Your task to perform on an android device: turn on priority inbox in the gmail app Image 0: 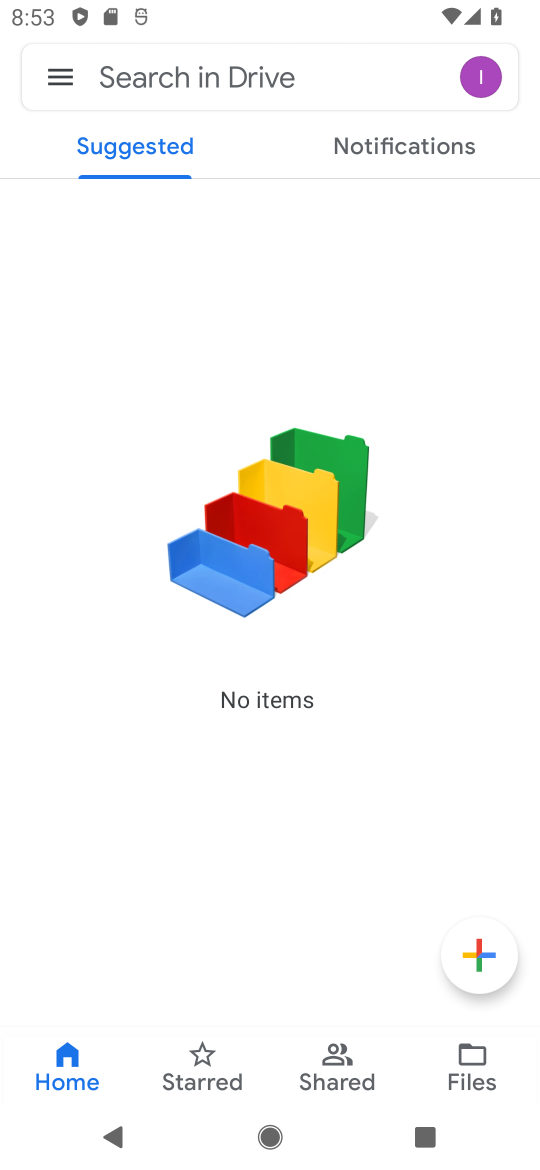
Step 0: press home button
Your task to perform on an android device: turn on priority inbox in the gmail app Image 1: 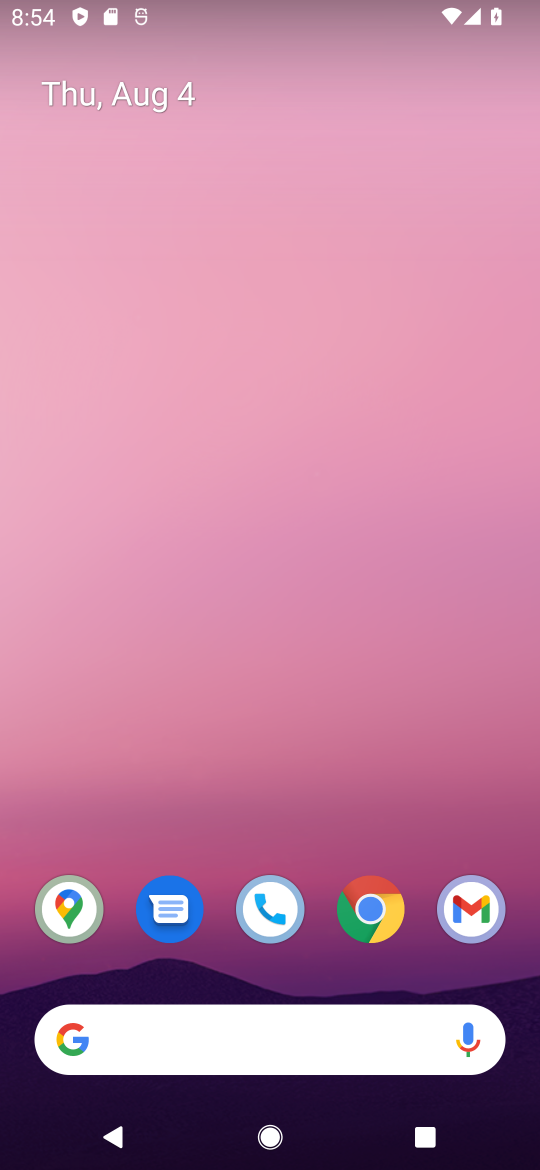
Step 1: drag from (306, 634) to (313, 238)
Your task to perform on an android device: turn on priority inbox in the gmail app Image 2: 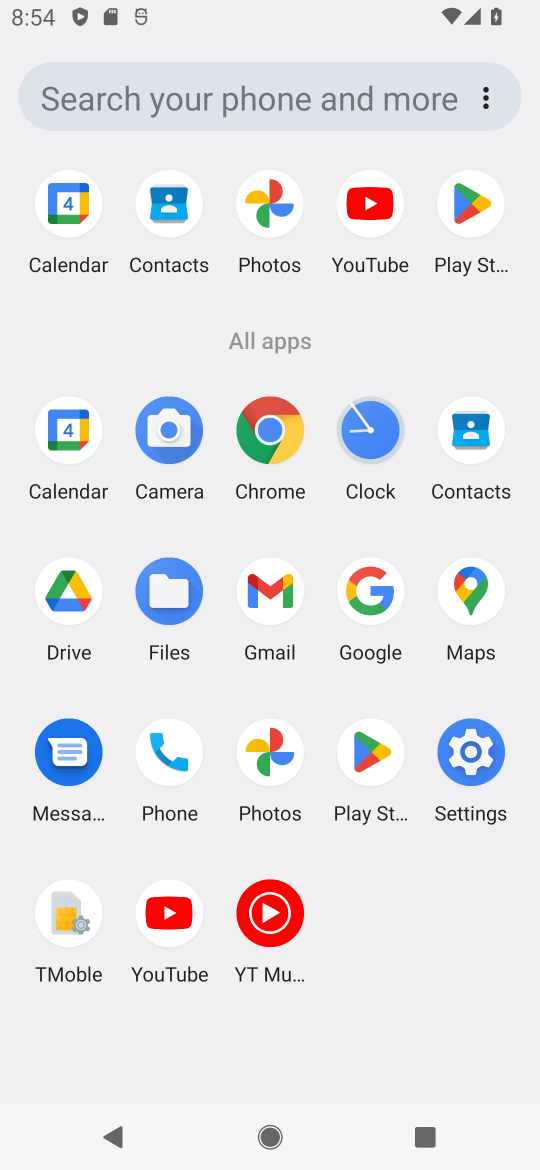
Step 2: click (275, 592)
Your task to perform on an android device: turn on priority inbox in the gmail app Image 3: 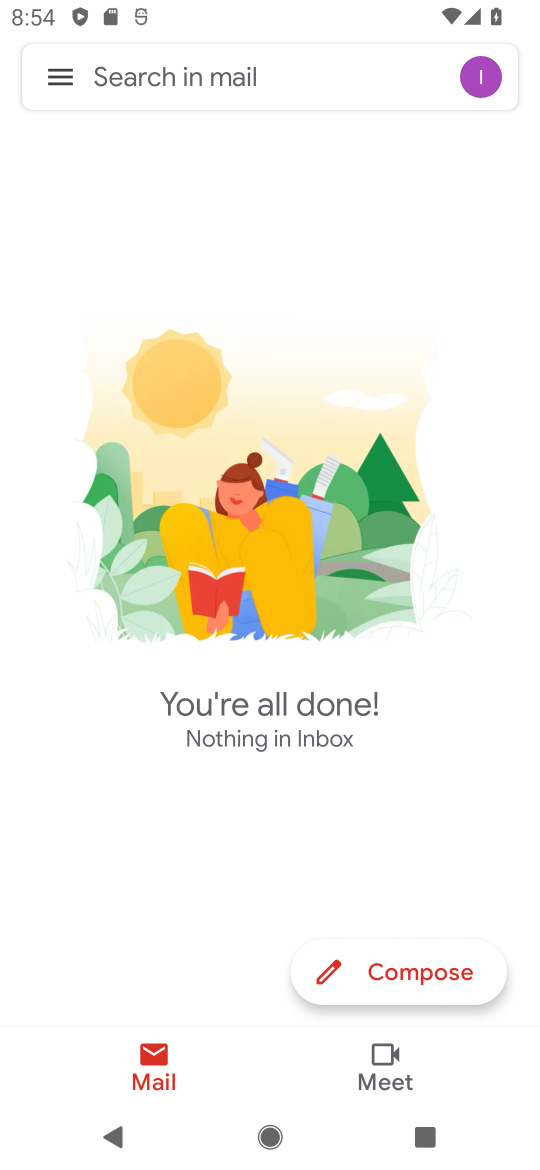
Step 3: click (61, 72)
Your task to perform on an android device: turn on priority inbox in the gmail app Image 4: 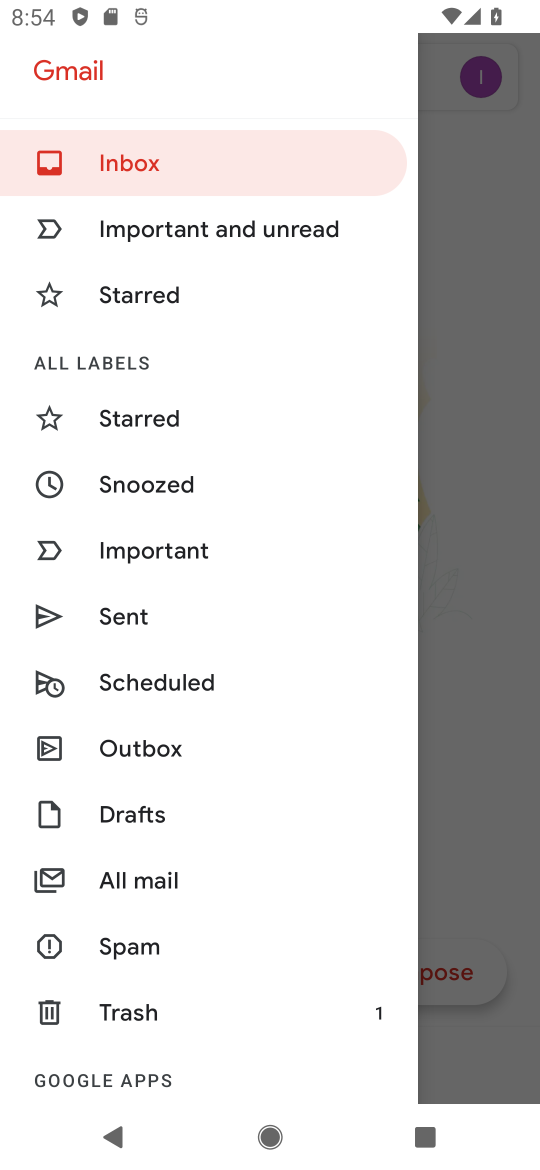
Step 4: drag from (264, 840) to (291, 685)
Your task to perform on an android device: turn on priority inbox in the gmail app Image 5: 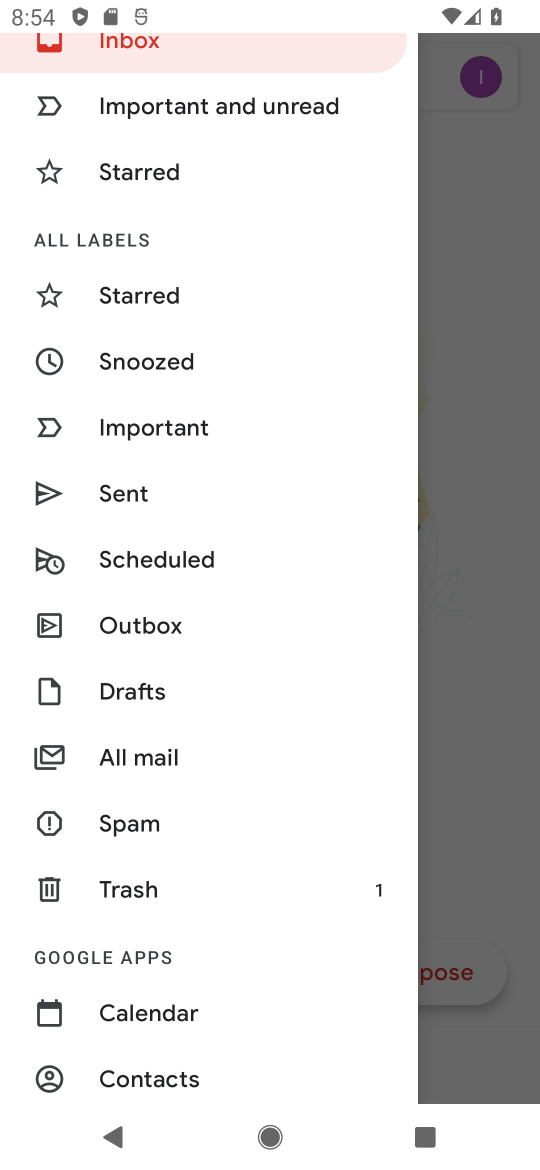
Step 5: drag from (266, 939) to (269, 676)
Your task to perform on an android device: turn on priority inbox in the gmail app Image 6: 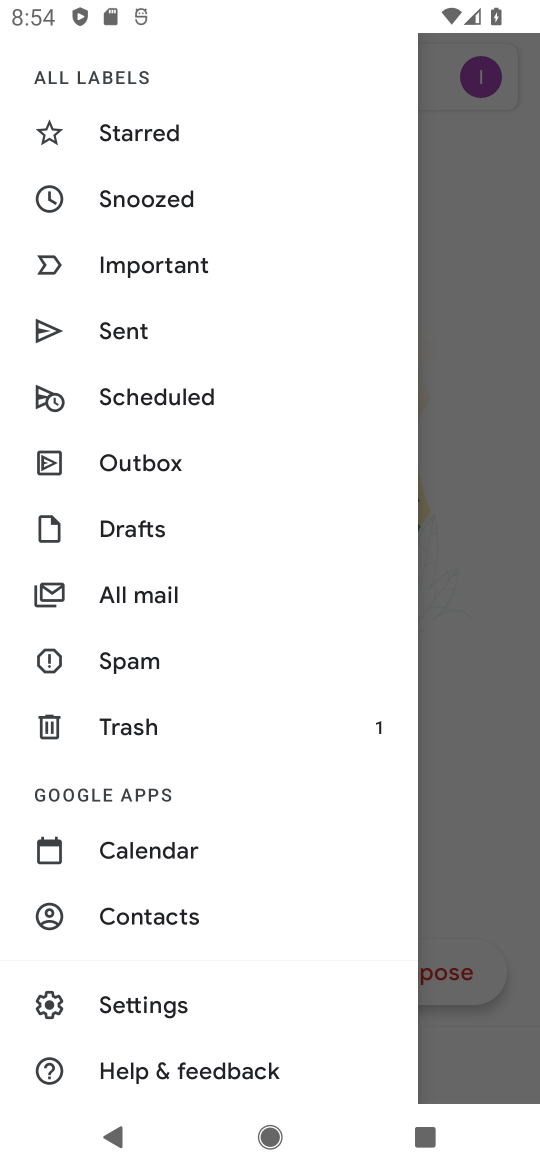
Step 6: drag from (255, 906) to (266, 728)
Your task to perform on an android device: turn on priority inbox in the gmail app Image 7: 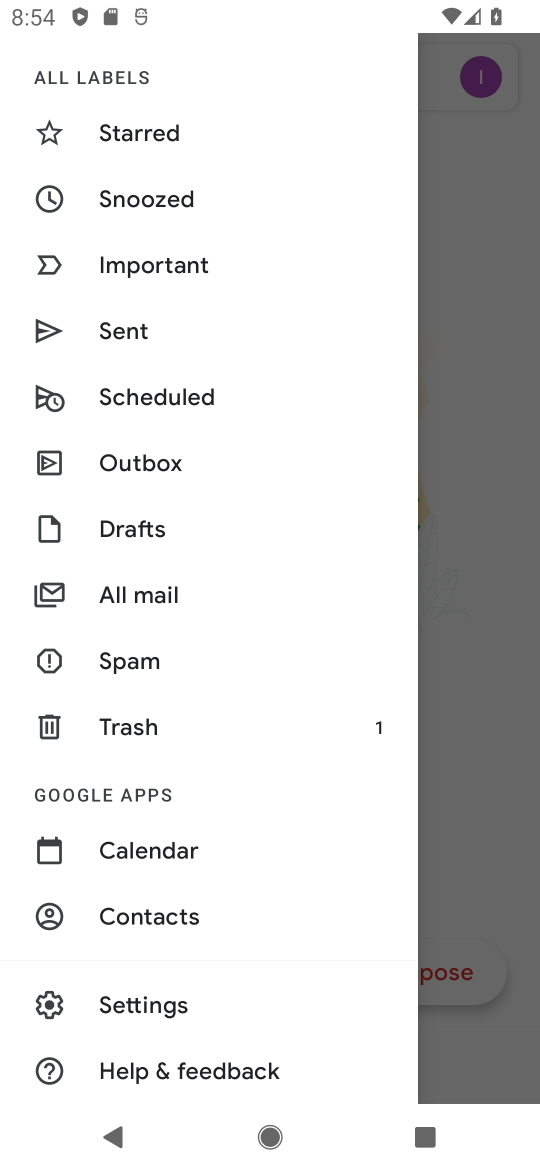
Step 7: drag from (284, 369) to (293, 651)
Your task to perform on an android device: turn on priority inbox in the gmail app Image 8: 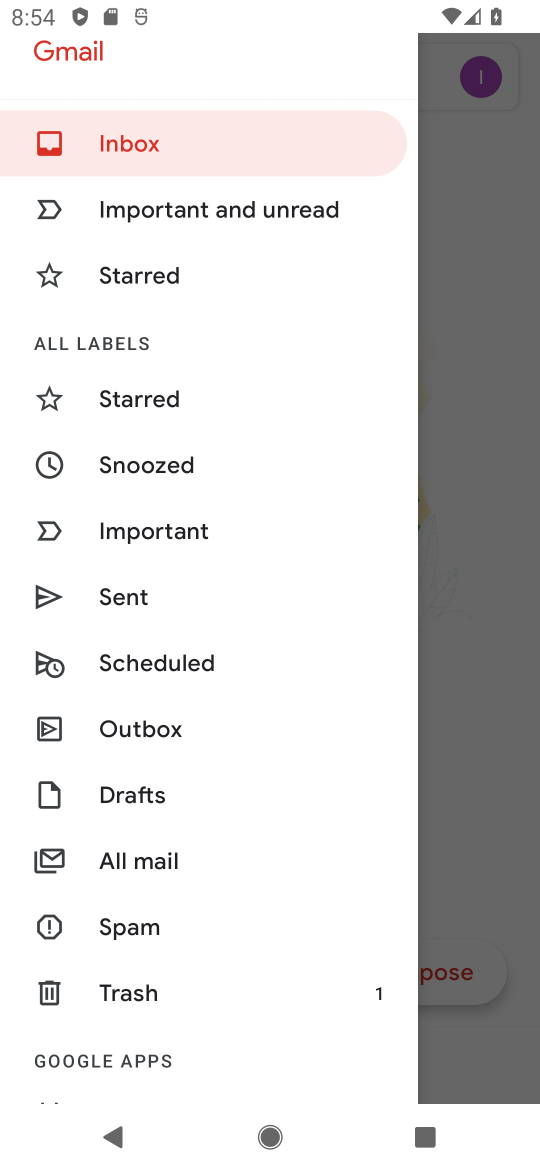
Step 8: drag from (298, 314) to (315, 690)
Your task to perform on an android device: turn on priority inbox in the gmail app Image 9: 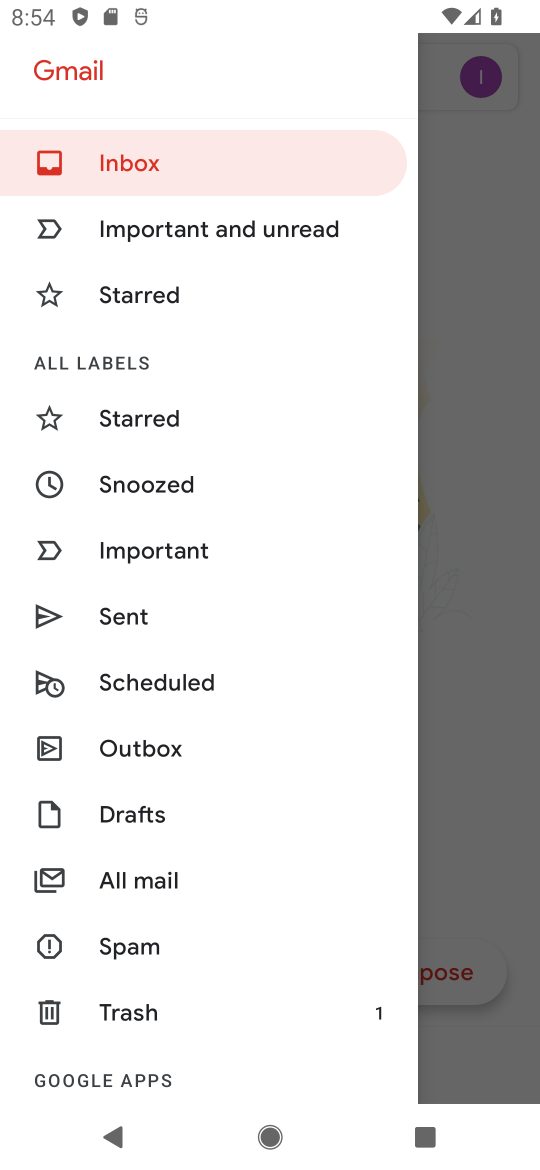
Step 9: drag from (275, 887) to (286, 626)
Your task to perform on an android device: turn on priority inbox in the gmail app Image 10: 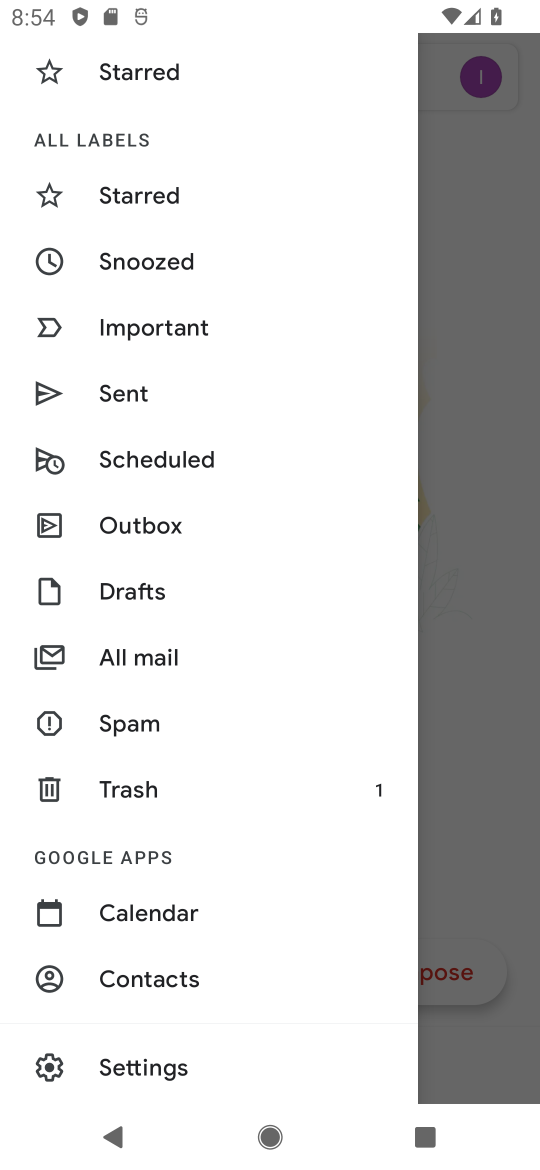
Step 10: drag from (252, 830) to (275, 499)
Your task to perform on an android device: turn on priority inbox in the gmail app Image 11: 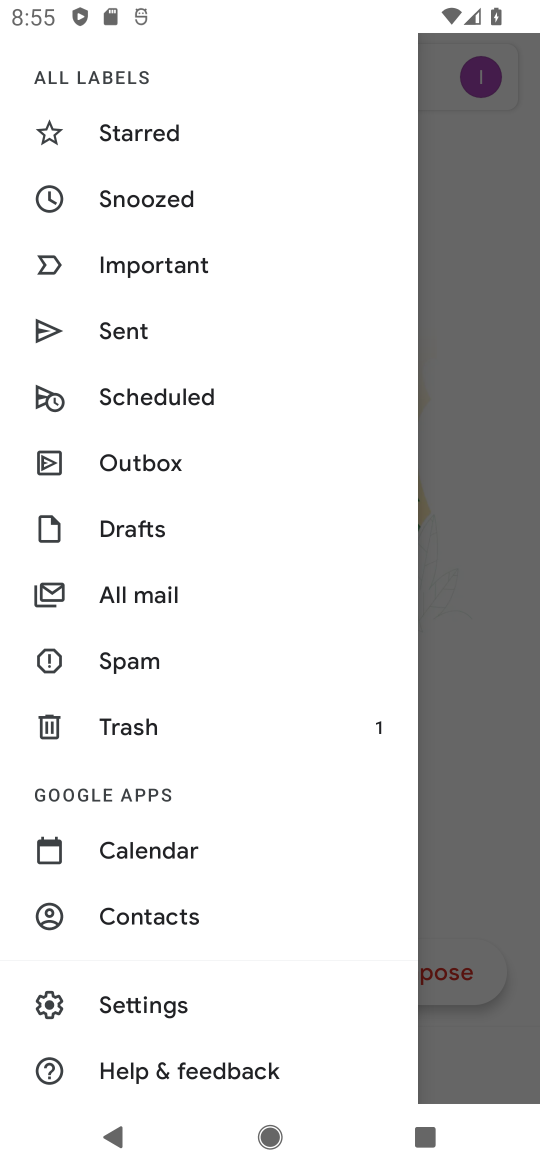
Step 11: click (173, 1009)
Your task to perform on an android device: turn on priority inbox in the gmail app Image 12: 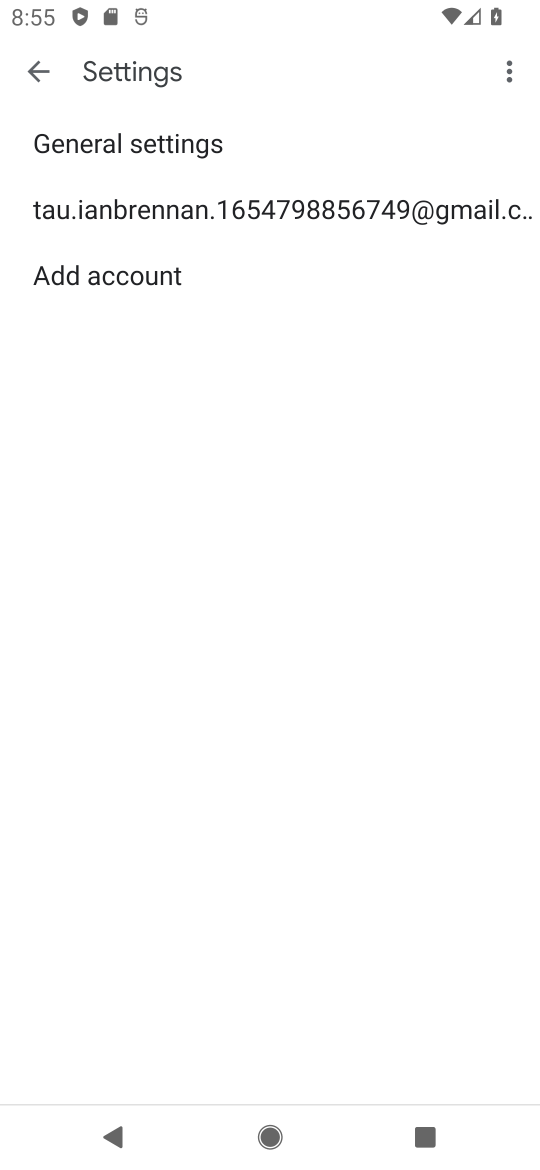
Step 12: click (204, 206)
Your task to perform on an android device: turn on priority inbox in the gmail app Image 13: 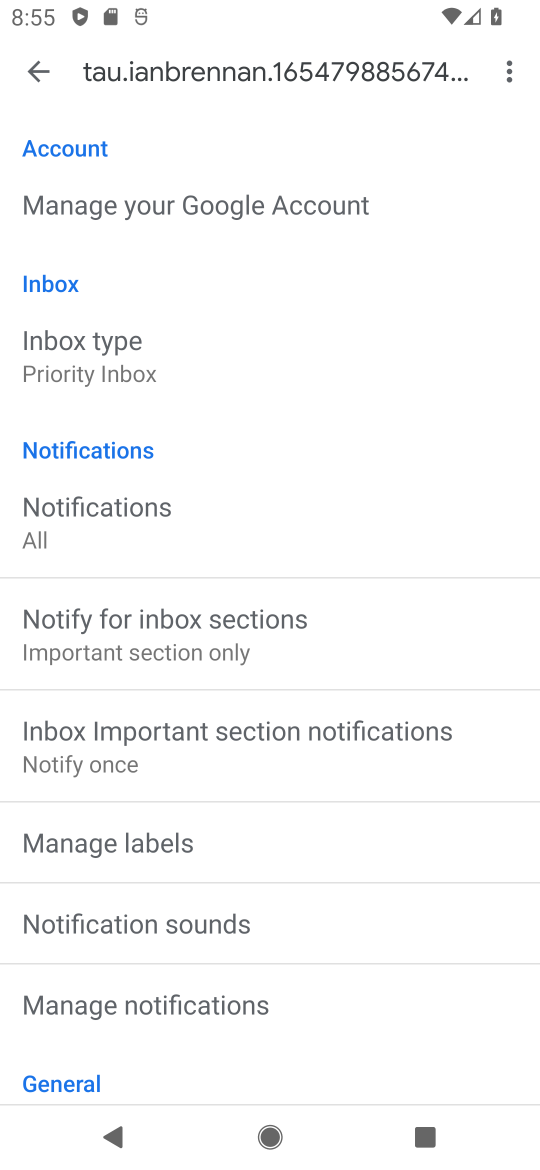
Step 13: task complete